Your task to perform on an android device: turn off airplane mode Image 0: 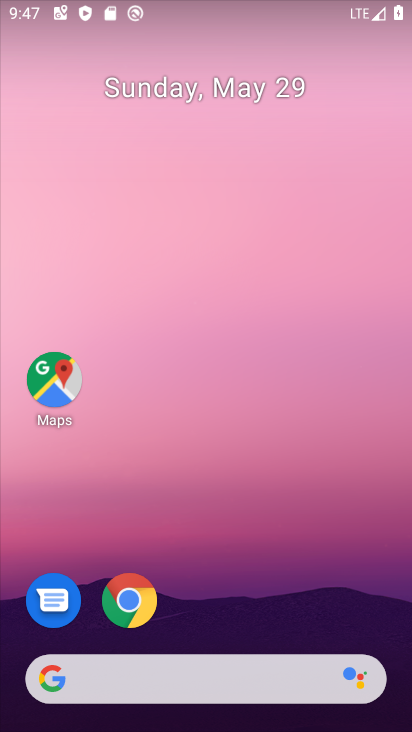
Step 0: drag from (251, 7) to (253, 501)
Your task to perform on an android device: turn off airplane mode Image 1: 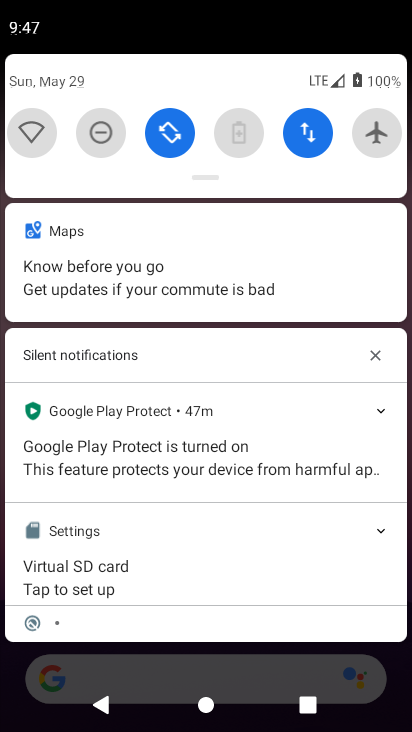
Step 1: task complete